Your task to perform on an android device: Clear the shopping cart on amazon.com. Add "usb-c to usb-b" to the cart on amazon.com, then select checkout. Image 0: 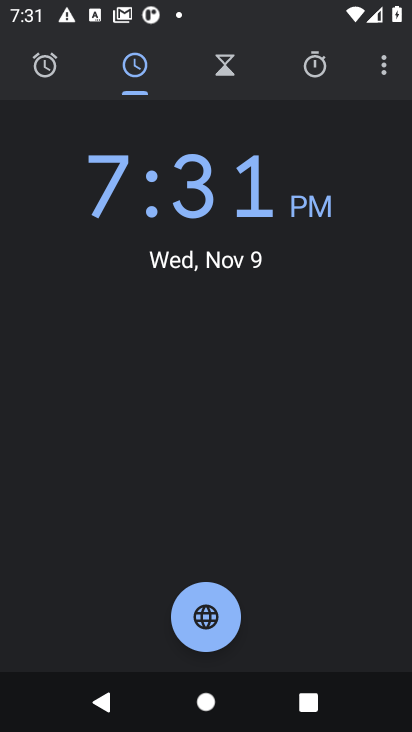
Step 0: press home button
Your task to perform on an android device: Clear the shopping cart on amazon.com. Add "usb-c to usb-b" to the cart on amazon.com, then select checkout. Image 1: 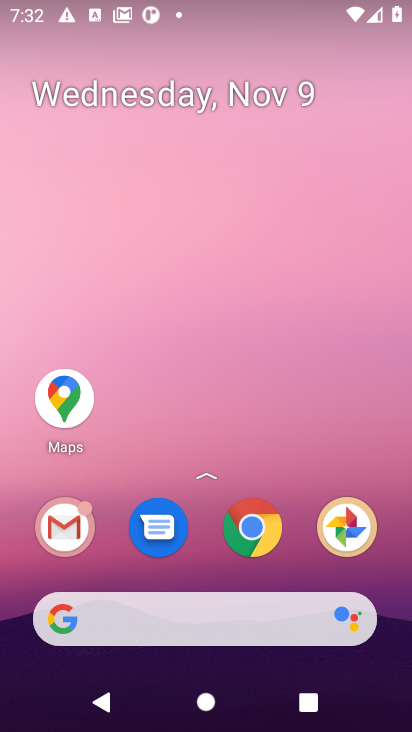
Step 1: click (251, 545)
Your task to perform on an android device: Clear the shopping cart on amazon.com. Add "usb-c to usb-b" to the cart on amazon.com, then select checkout. Image 2: 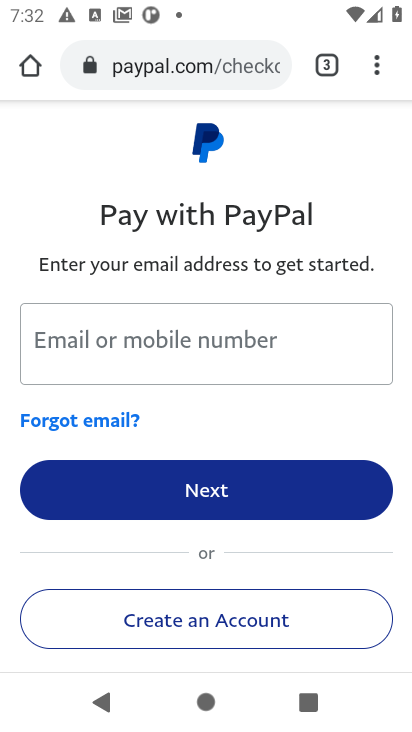
Step 2: click (203, 70)
Your task to perform on an android device: Clear the shopping cart on amazon.com. Add "usb-c to usb-b" to the cart on amazon.com, then select checkout. Image 3: 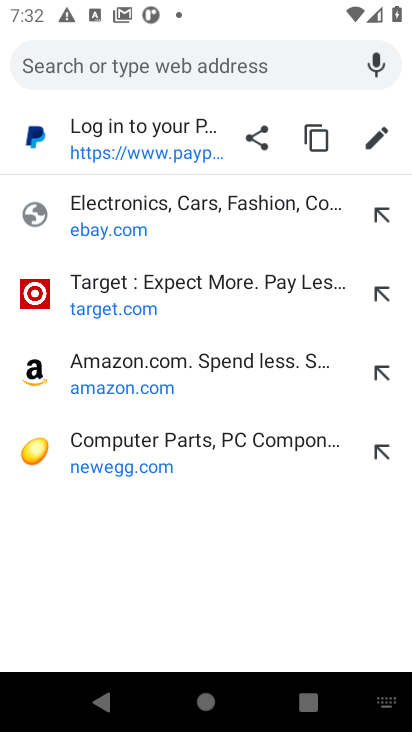
Step 3: click (101, 375)
Your task to perform on an android device: Clear the shopping cart on amazon.com. Add "usb-c to usb-b" to the cart on amazon.com, then select checkout. Image 4: 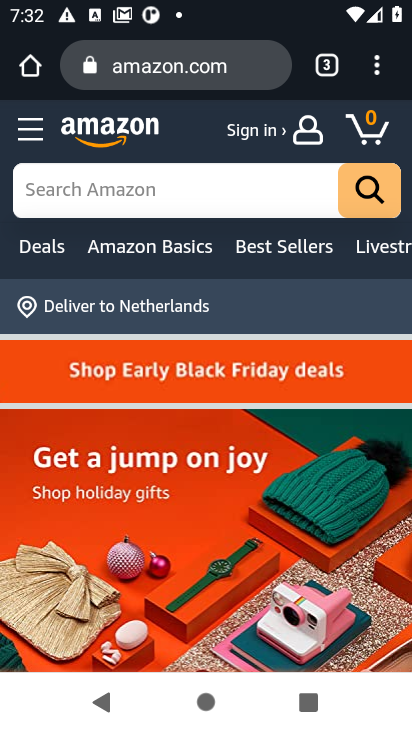
Step 4: click (373, 132)
Your task to perform on an android device: Clear the shopping cart on amazon.com. Add "usb-c to usb-b" to the cart on amazon.com, then select checkout. Image 5: 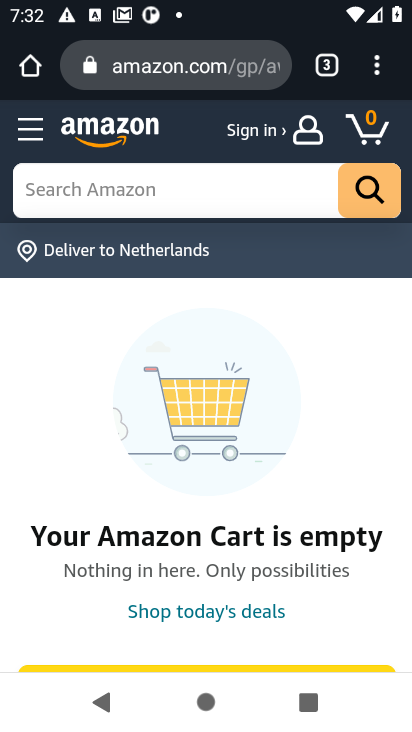
Step 5: drag from (216, 556) to (245, 411)
Your task to perform on an android device: Clear the shopping cart on amazon.com. Add "usb-c to usb-b" to the cart on amazon.com, then select checkout. Image 6: 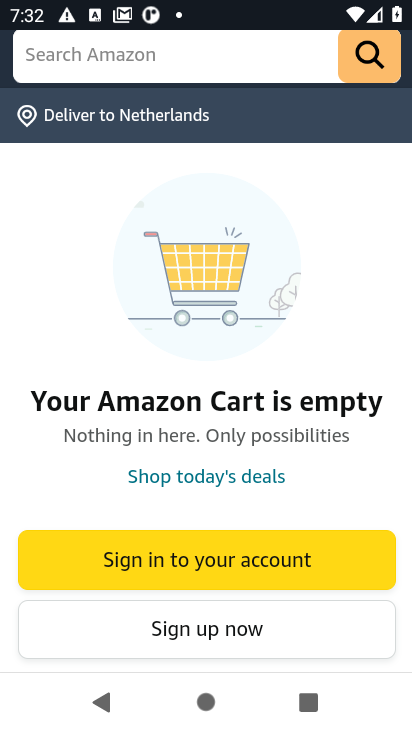
Step 6: click (145, 64)
Your task to perform on an android device: Clear the shopping cart on amazon.com. Add "usb-c to usb-b" to the cart on amazon.com, then select checkout. Image 7: 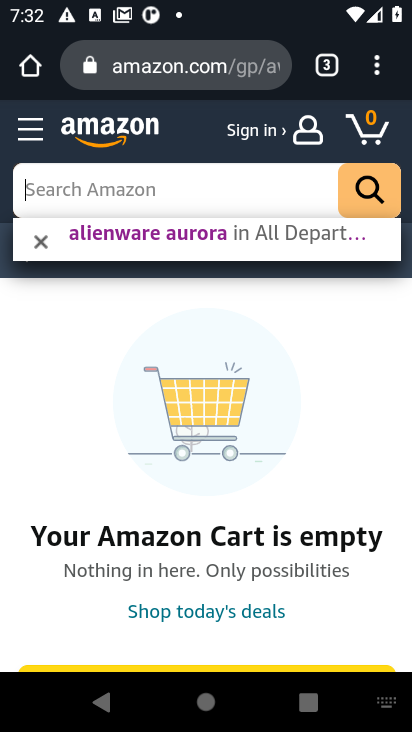
Step 7: type "usb-c to usb-b"
Your task to perform on an android device: Clear the shopping cart on amazon.com. Add "usb-c to usb-b" to the cart on amazon.com, then select checkout. Image 8: 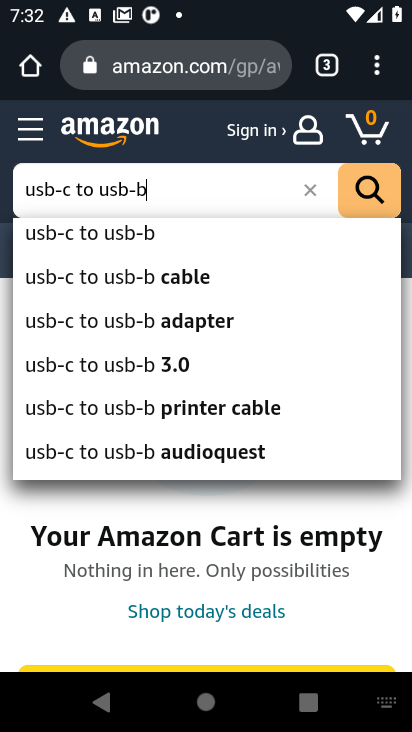
Step 8: click (107, 236)
Your task to perform on an android device: Clear the shopping cart on amazon.com. Add "usb-c to usb-b" to the cart on amazon.com, then select checkout. Image 9: 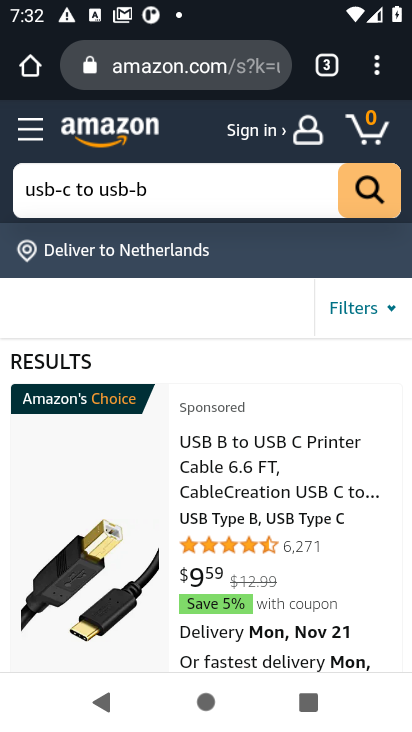
Step 9: drag from (136, 574) to (147, 378)
Your task to perform on an android device: Clear the shopping cart on amazon.com. Add "usb-c to usb-b" to the cart on amazon.com, then select checkout. Image 10: 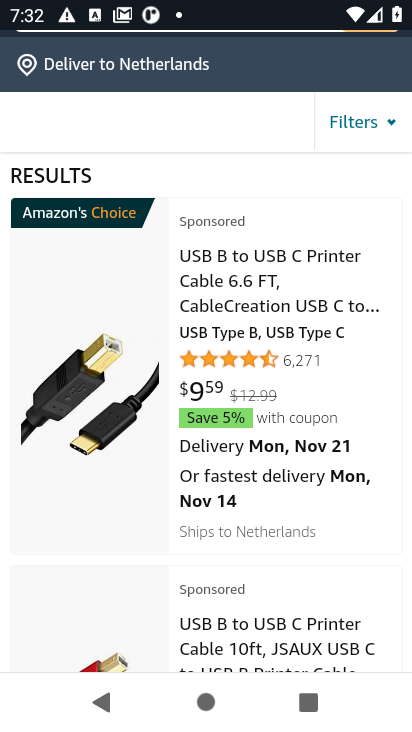
Step 10: click (103, 411)
Your task to perform on an android device: Clear the shopping cart on amazon.com. Add "usb-c to usb-b" to the cart on amazon.com, then select checkout. Image 11: 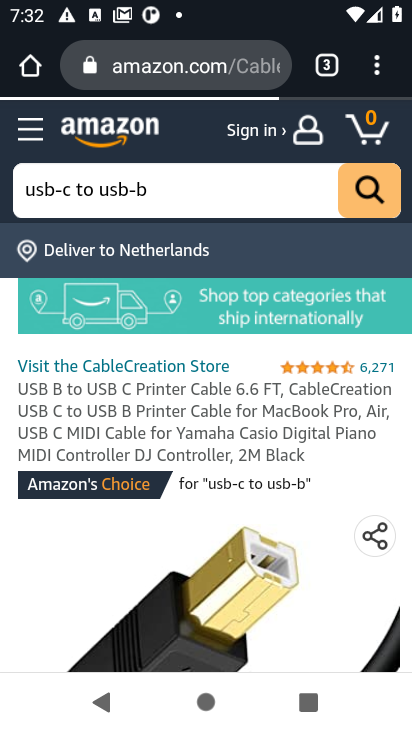
Step 11: drag from (144, 525) to (154, 180)
Your task to perform on an android device: Clear the shopping cart on amazon.com. Add "usb-c to usb-b" to the cart on amazon.com, then select checkout. Image 12: 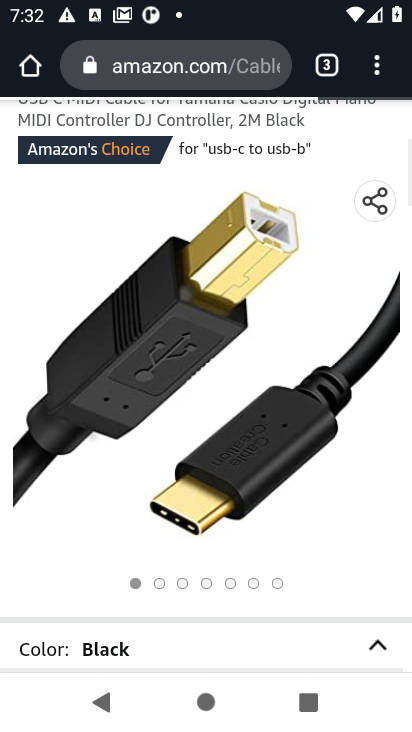
Step 12: drag from (158, 530) to (165, 307)
Your task to perform on an android device: Clear the shopping cart on amazon.com. Add "usb-c to usb-b" to the cart on amazon.com, then select checkout. Image 13: 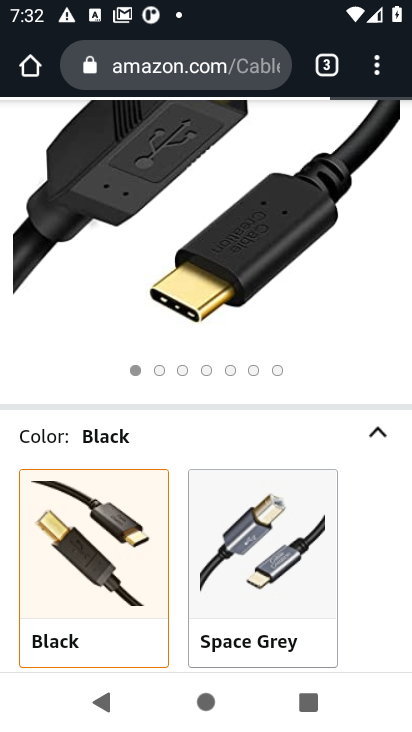
Step 13: drag from (181, 578) to (183, 272)
Your task to perform on an android device: Clear the shopping cart on amazon.com. Add "usb-c to usb-b" to the cart on amazon.com, then select checkout. Image 14: 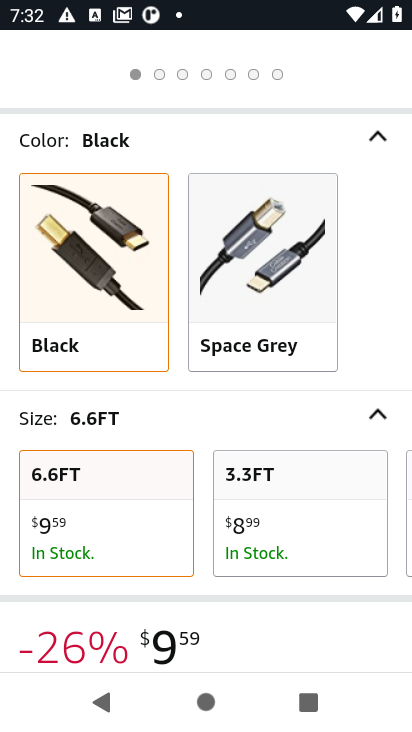
Step 14: drag from (193, 554) to (200, 277)
Your task to perform on an android device: Clear the shopping cart on amazon.com. Add "usb-c to usb-b" to the cart on amazon.com, then select checkout. Image 15: 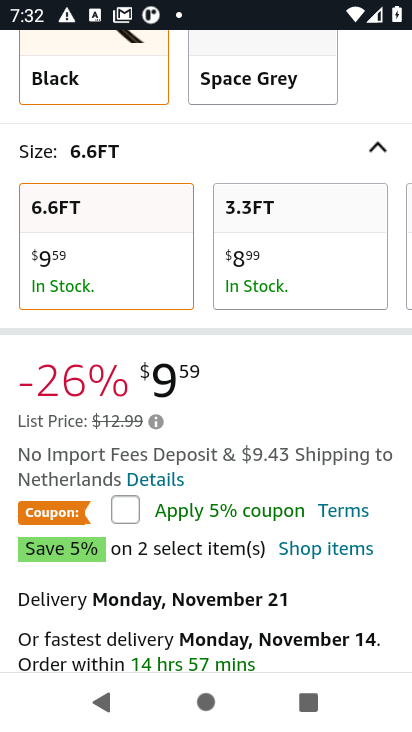
Step 15: drag from (204, 531) to (186, 236)
Your task to perform on an android device: Clear the shopping cart on amazon.com. Add "usb-c to usb-b" to the cart on amazon.com, then select checkout. Image 16: 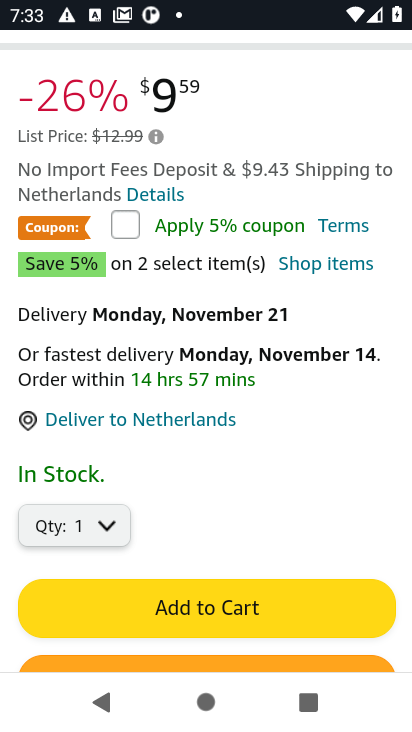
Step 16: click (187, 601)
Your task to perform on an android device: Clear the shopping cart on amazon.com. Add "usb-c to usb-b" to the cart on amazon.com, then select checkout. Image 17: 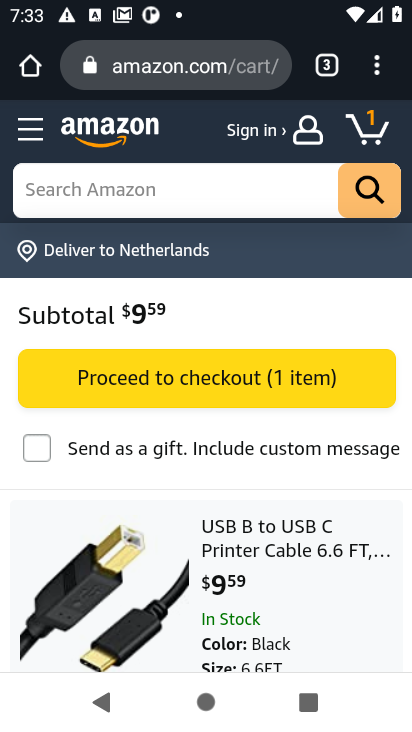
Step 17: click (202, 378)
Your task to perform on an android device: Clear the shopping cart on amazon.com. Add "usb-c to usb-b" to the cart on amazon.com, then select checkout. Image 18: 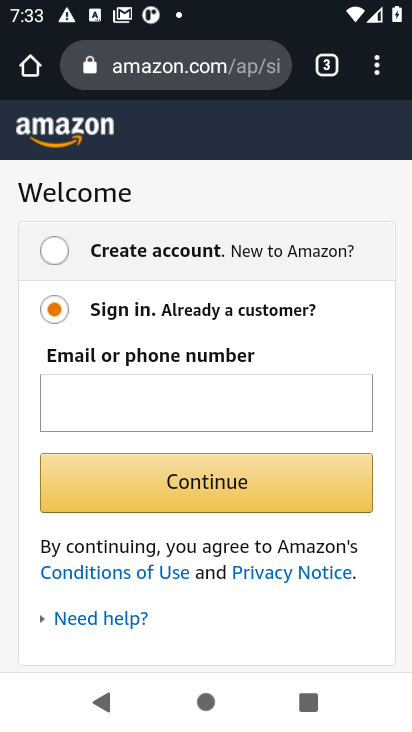
Step 18: task complete